Your task to perform on an android device: toggle notification dots Image 0: 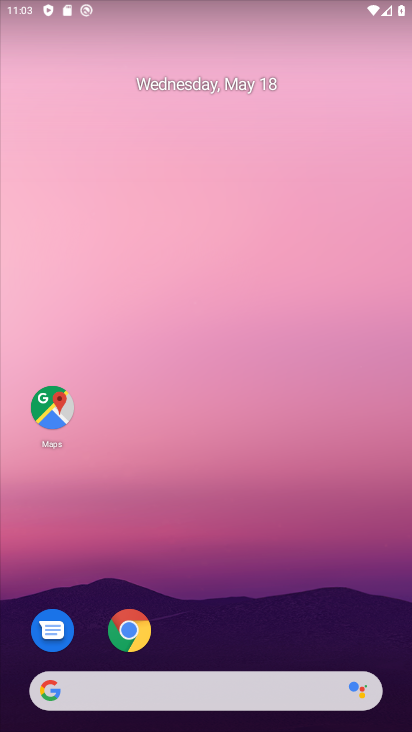
Step 0: drag from (197, 621) to (247, 93)
Your task to perform on an android device: toggle notification dots Image 1: 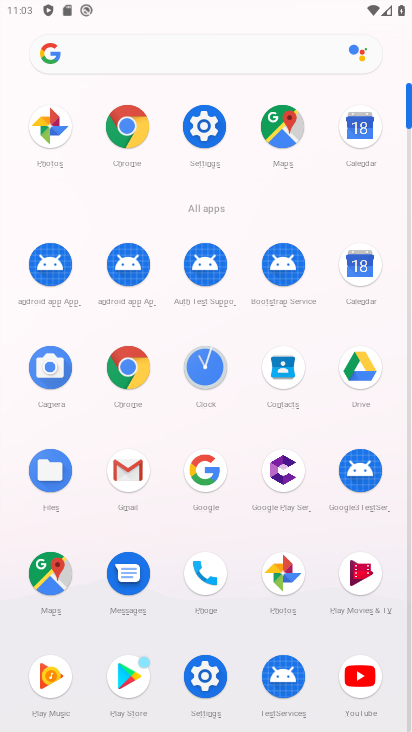
Step 1: click (199, 120)
Your task to perform on an android device: toggle notification dots Image 2: 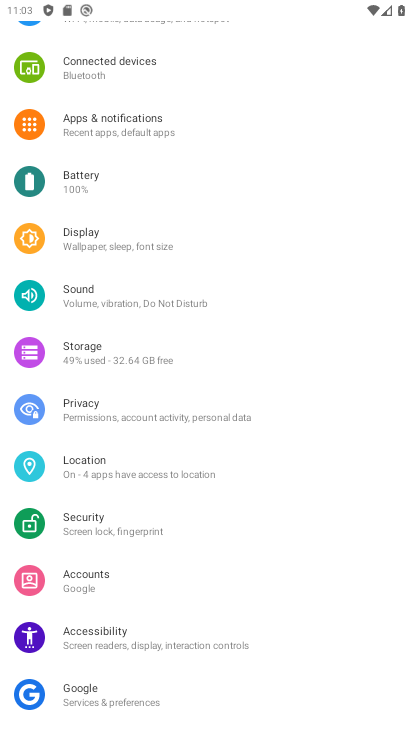
Step 2: click (144, 130)
Your task to perform on an android device: toggle notification dots Image 3: 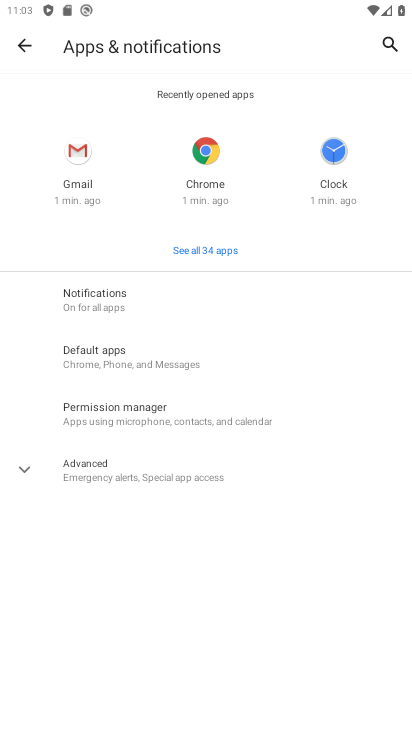
Step 3: click (119, 303)
Your task to perform on an android device: toggle notification dots Image 4: 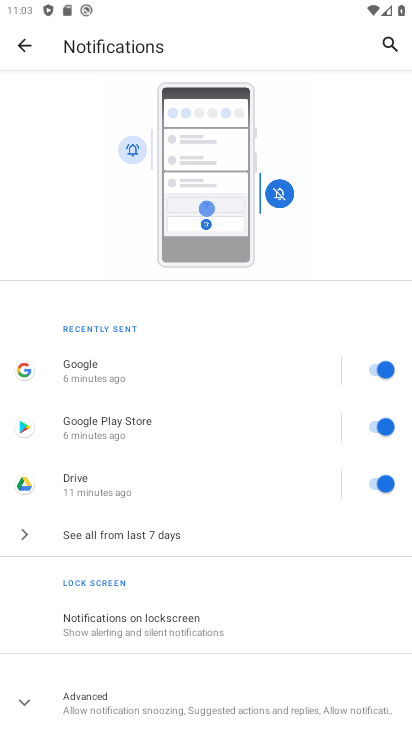
Step 4: drag from (123, 616) to (141, 485)
Your task to perform on an android device: toggle notification dots Image 5: 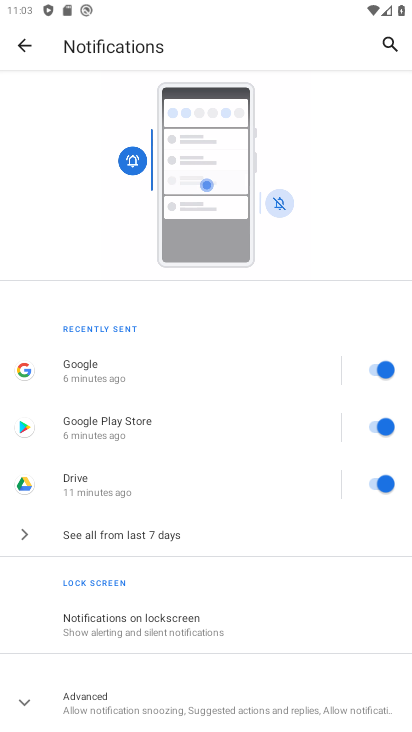
Step 5: click (56, 688)
Your task to perform on an android device: toggle notification dots Image 6: 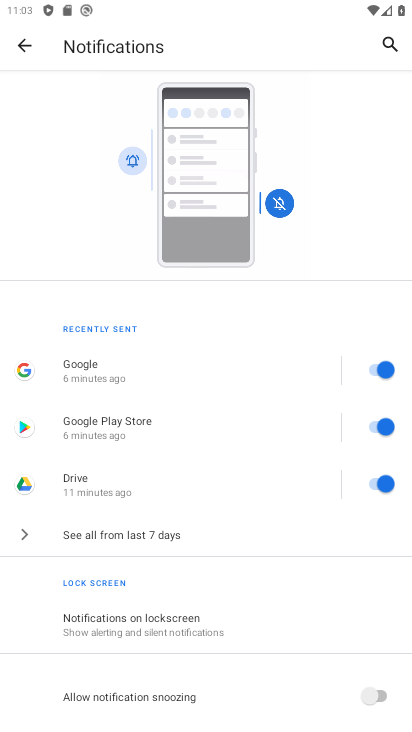
Step 6: drag from (104, 647) to (204, 352)
Your task to perform on an android device: toggle notification dots Image 7: 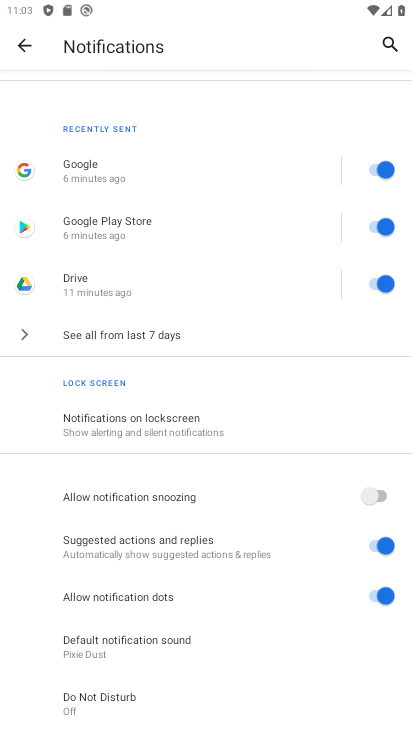
Step 7: click (375, 596)
Your task to perform on an android device: toggle notification dots Image 8: 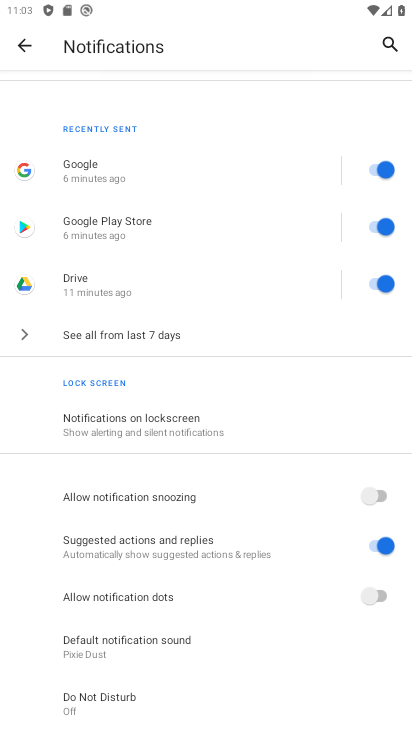
Step 8: task complete